Your task to perform on an android device: turn off improve location accuracy Image 0: 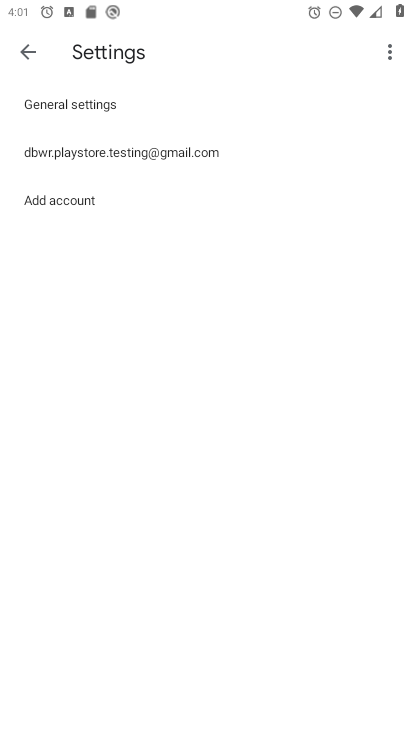
Step 0: press home button
Your task to perform on an android device: turn off improve location accuracy Image 1: 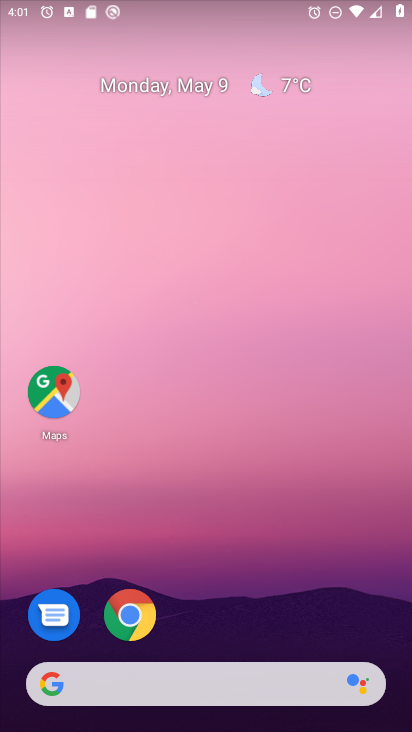
Step 1: drag from (371, 626) to (315, 71)
Your task to perform on an android device: turn off improve location accuracy Image 2: 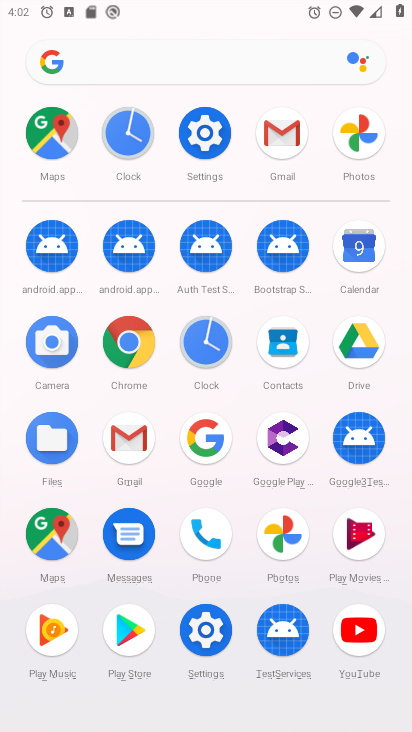
Step 2: click (204, 630)
Your task to perform on an android device: turn off improve location accuracy Image 3: 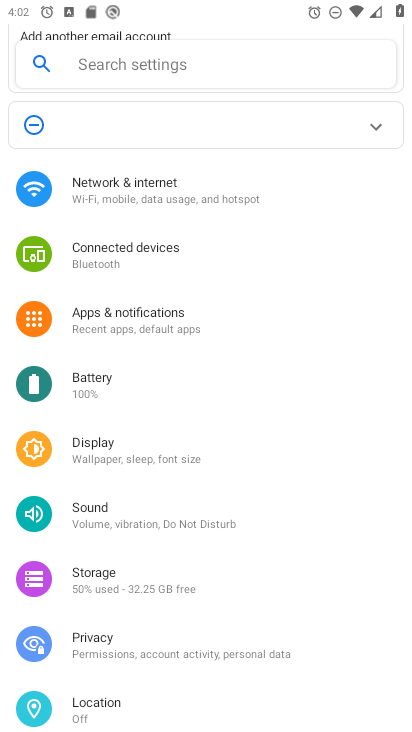
Step 3: drag from (315, 632) to (317, 362)
Your task to perform on an android device: turn off improve location accuracy Image 4: 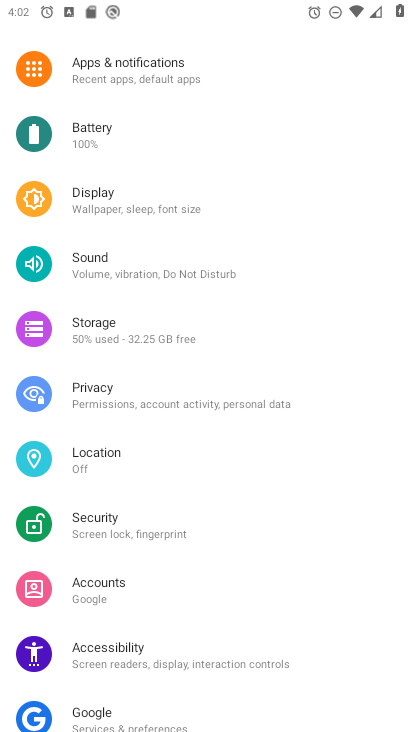
Step 4: click (96, 463)
Your task to perform on an android device: turn off improve location accuracy Image 5: 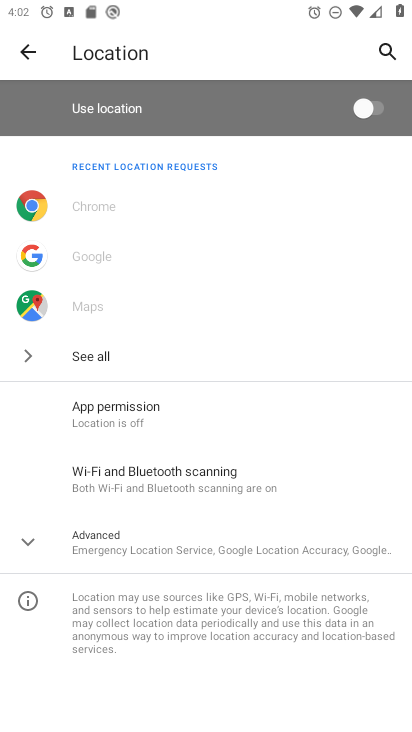
Step 5: click (82, 541)
Your task to perform on an android device: turn off improve location accuracy Image 6: 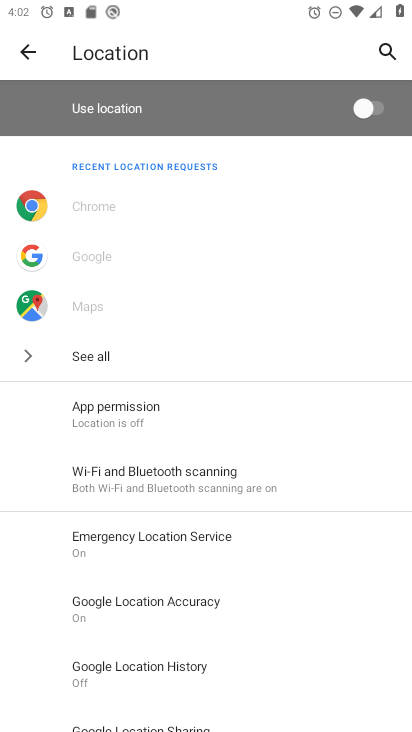
Step 6: click (155, 604)
Your task to perform on an android device: turn off improve location accuracy Image 7: 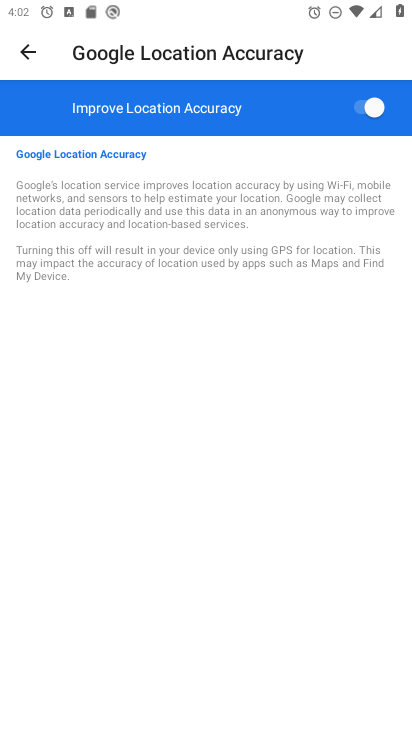
Step 7: click (355, 97)
Your task to perform on an android device: turn off improve location accuracy Image 8: 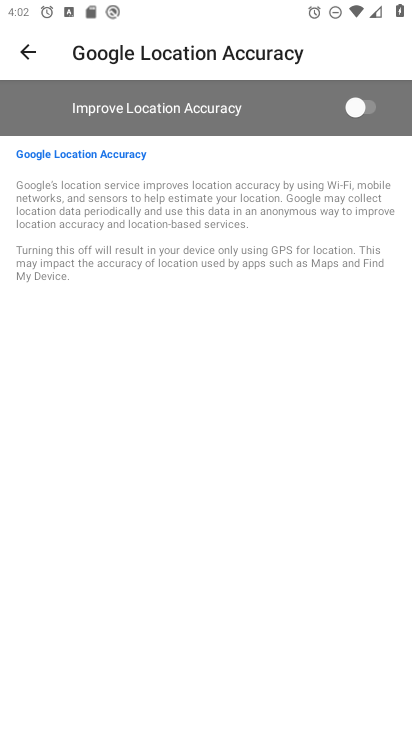
Step 8: task complete